Your task to perform on an android device: turn off priority inbox in the gmail app Image 0: 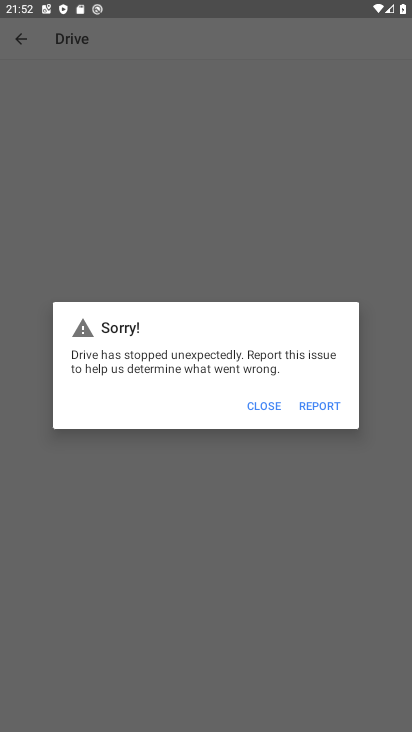
Step 0: press home button
Your task to perform on an android device: turn off priority inbox in the gmail app Image 1: 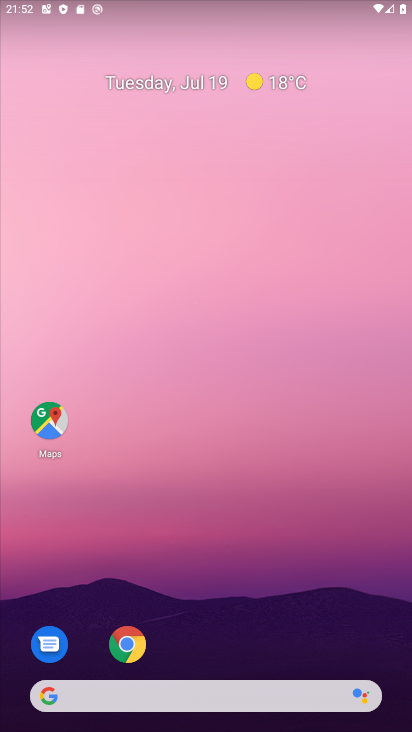
Step 1: drag from (228, 719) to (228, 231)
Your task to perform on an android device: turn off priority inbox in the gmail app Image 2: 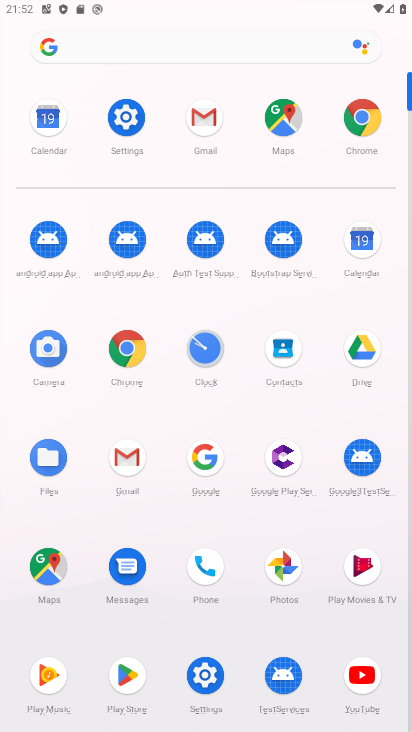
Step 2: click (125, 449)
Your task to perform on an android device: turn off priority inbox in the gmail app Image 3: 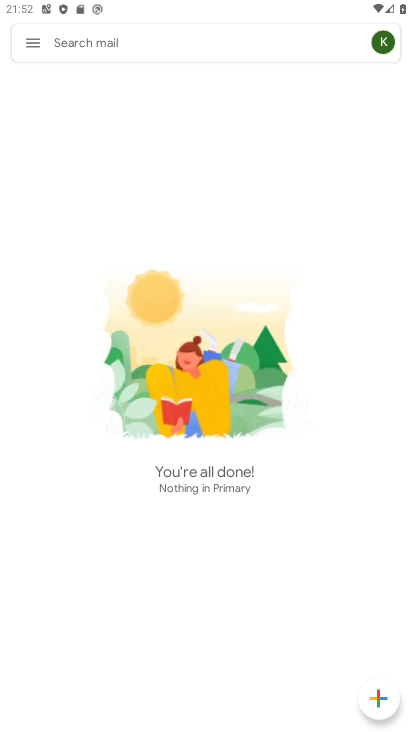
Step 3: click (33, 43)
Your task to perform on an android device: turn off priority inbox in the gmail app Image 4: 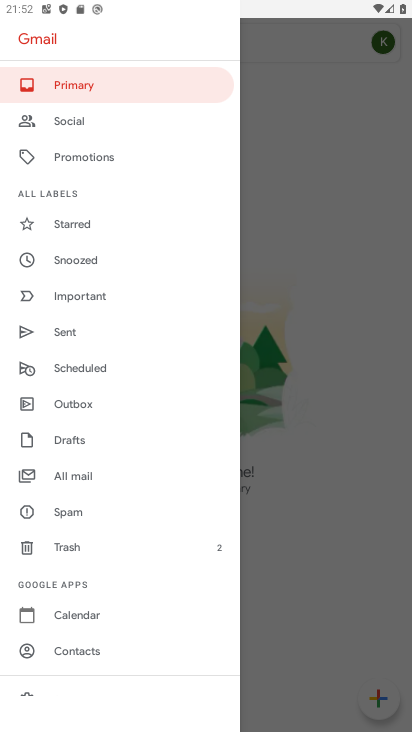
Step 4: drag from (87, 599) to (87, 333)
Your task to perform on an android device: turn off priority inbox in the gmail app Image 5: 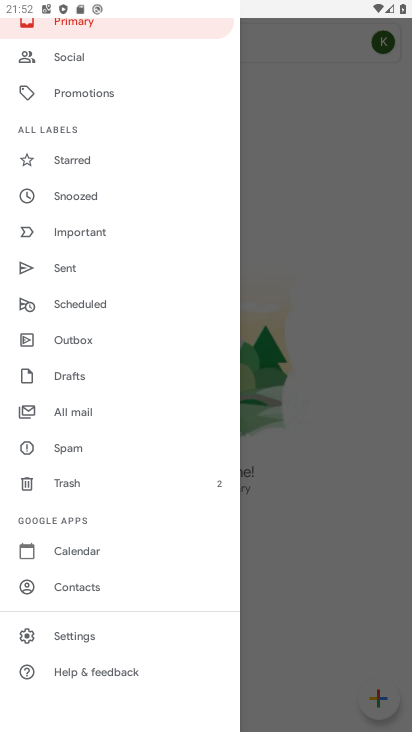
Step 5: click (81, 635)
Your task to perform on an android device: turn off priority inbox in the gmail app Image 6: 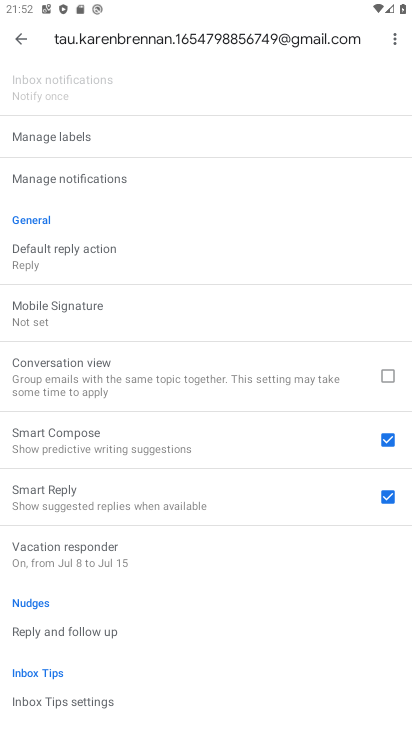
Step 6: task complete